Your task to perform on an android device: turn on showing notifications on the lock screen Image 0: 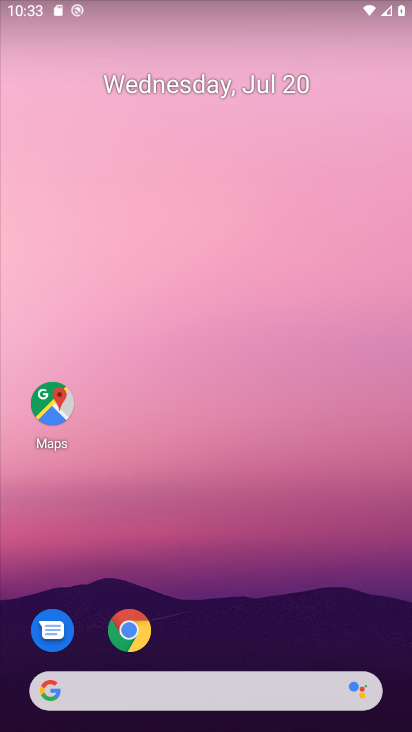
Step 0: click (198, 115)
Your task to perform on an android device: turn on showing notifications on the lock screen Image 1: 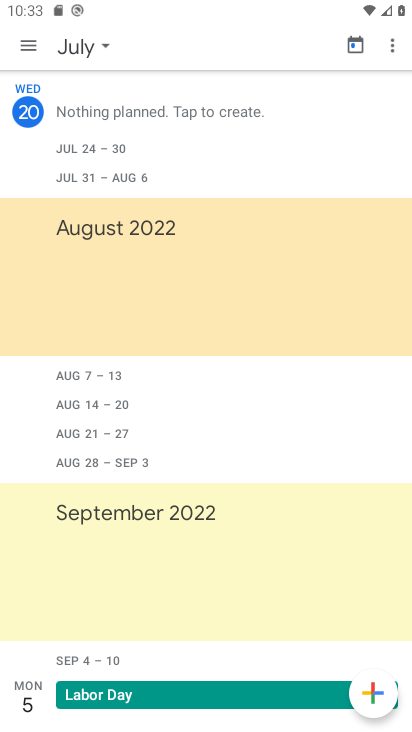
Step 1: press back button
Your task to perform on an android device: turn on showing notifications on the lock screen Image 2: 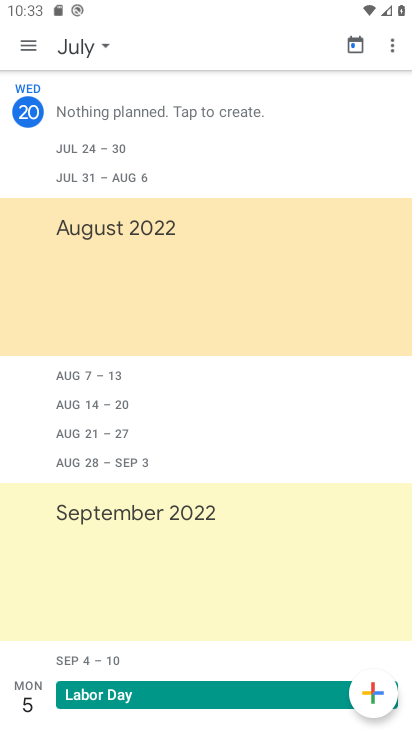
Step 2: press back button
Your task to perform on an android device: turn on showing notifications on the lock screen Image 3: 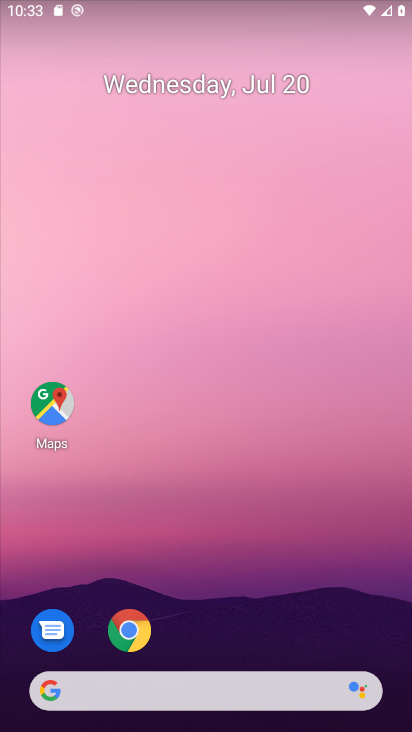
Step 3: drag from (281, 596) to (214, 204)
Your task to perform on an android device: turn on showing notifications on the lock screen Image 4: 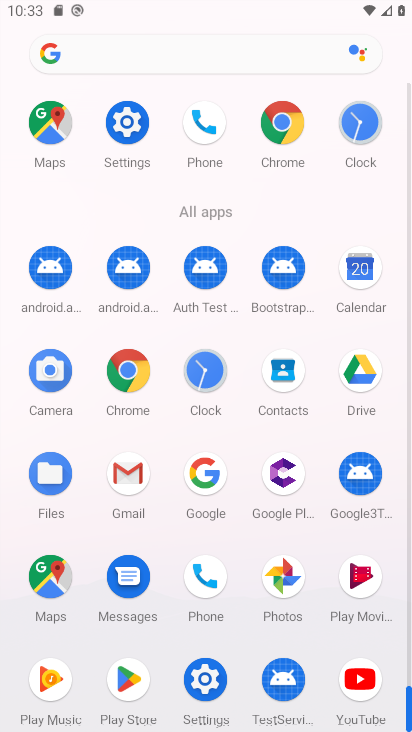
Step 4: click (204, 371)
Your task to perform on an android device: turn on showing notifications on the lock screen Image 5: 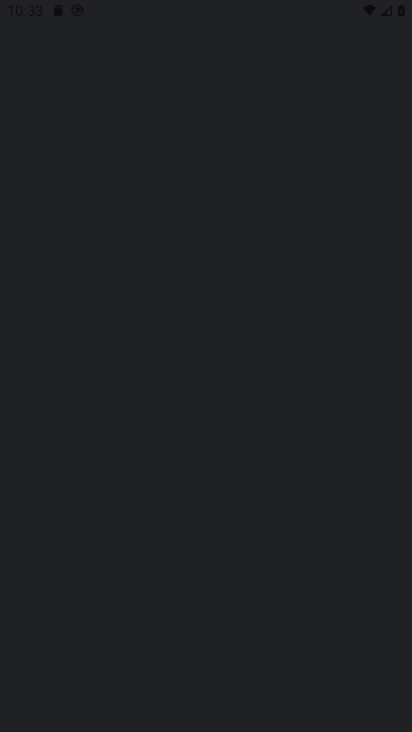
Step 5: click (218, 357)
Your task to perform on an android device: turn on showing notifications on the lock screen Image 6: 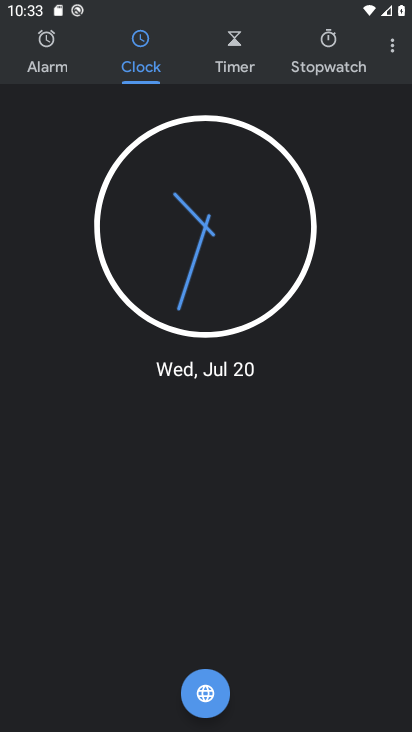
Step 6: press back button
Your task to perform on an android device: turn on showing notifications on the lock screen Image 7: 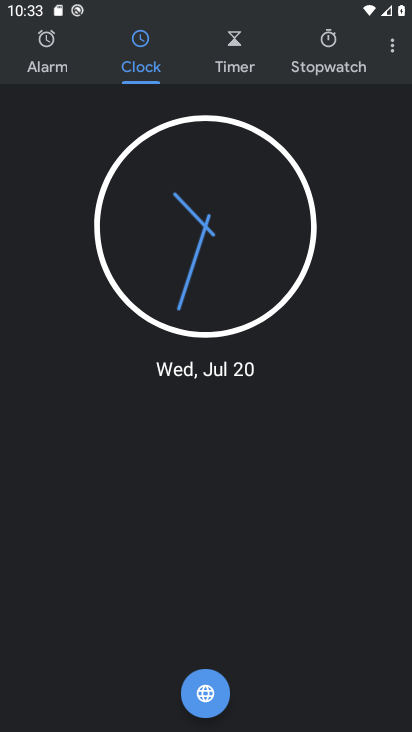
Step 7: press back button
Your task to perform on an android device: turn on showing notifications on the lock screen Image 8: 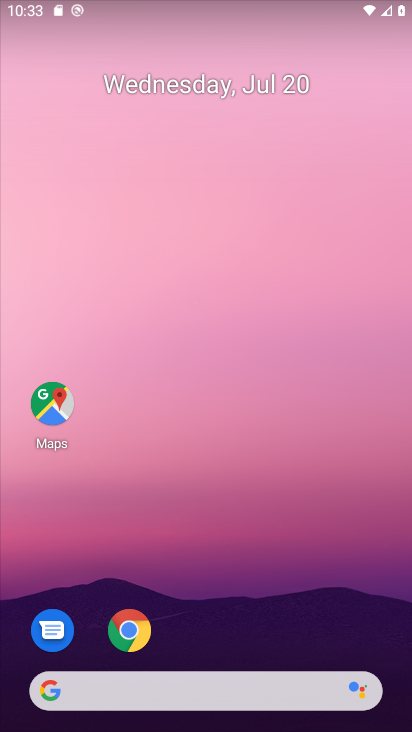
Step 8: drag from (186, 337) to (129, 149)
Your task to perform on an android device: turn on showing notifications on the lock screen Image 9: 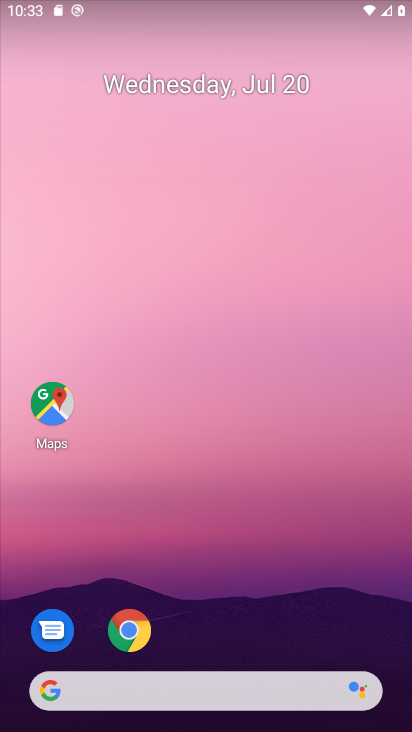
Step 9: drag from (212, 553) to (223, 245)
Your task to perform on an android device: turn on showing notifications on the lock screen Image 10: 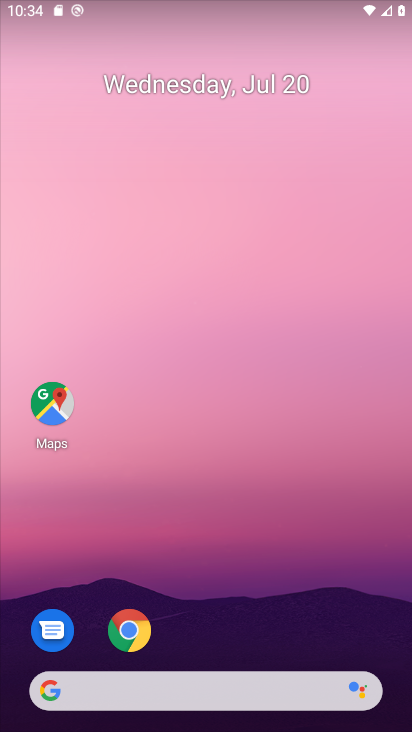
Step 10: drag from (253, 546) to (154, 246)
Your task to perform on an android device: turn on showing notifications on the lock screen Image 11: 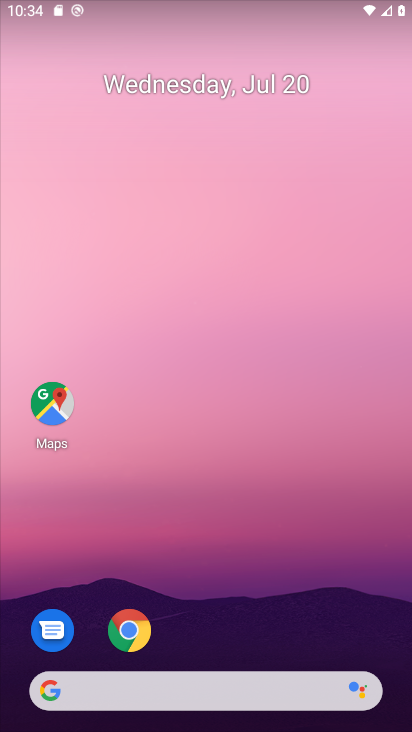
Step 11: drag from (178, 375) to (142, 161)
Your task to perform on an android device: turn on showing notifications on the lock screen Image 12: 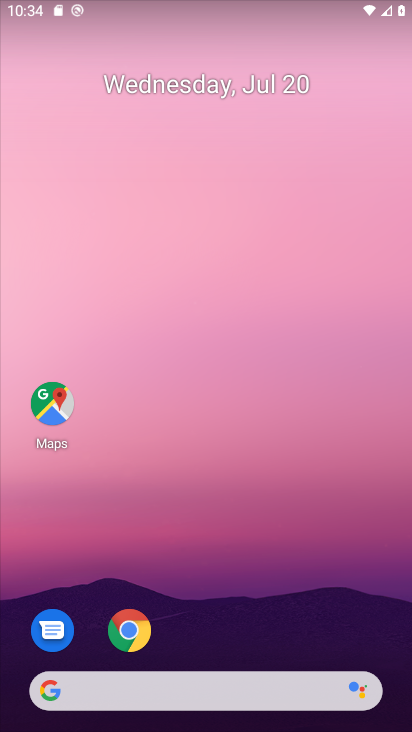
Step 12: drag from (239, 449) to (177, 193)
Your task to perform on an android device: turn on showing notifications on the lock screen Image 13: 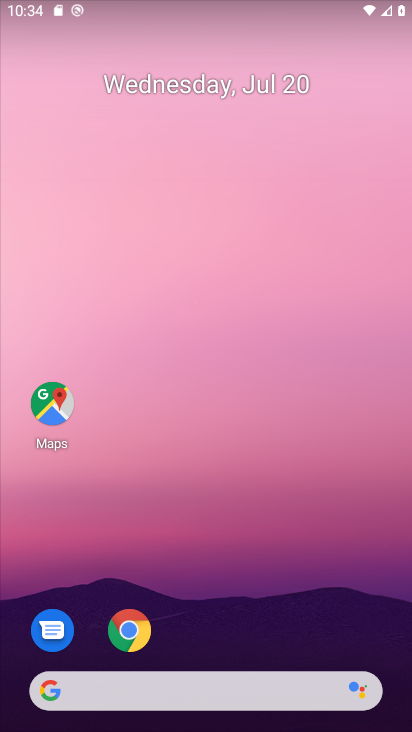
Step 13: drag from (171, 151) to (158, 24)
Your task to perform on an android device: turn on showing notifications on the lock screen Image 14: 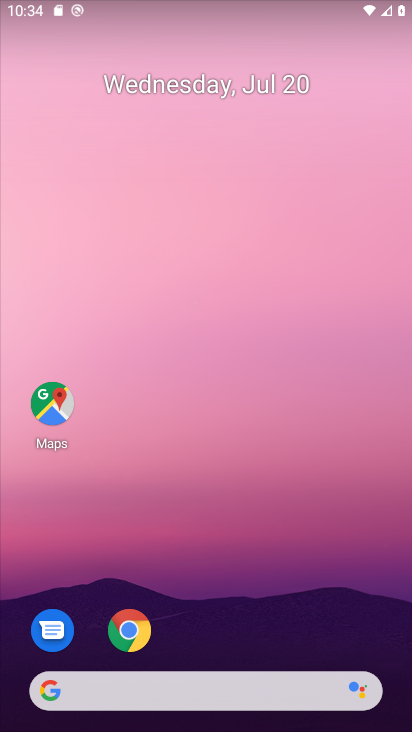
Step 14: drag from (214, 545) to (101, 25)
Your task to perform on an android device: turn on showing notifications on the lock screen Image 15: 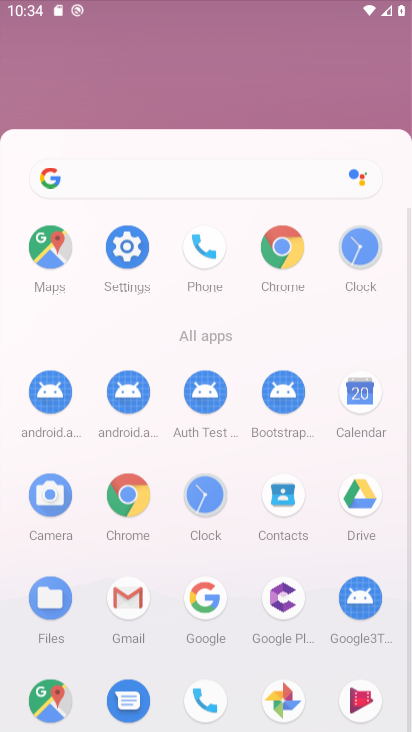
Step 15: drag from (133, 375) to (103, 39)
Your task to perform on an android device: turn on showing notifications on the lock screen Image 16: 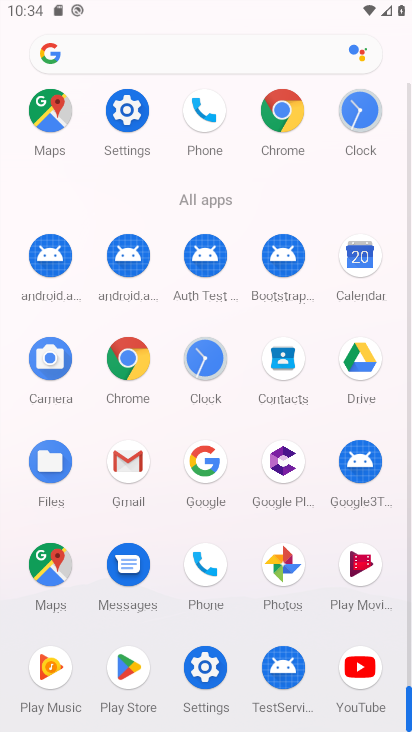
Step 16: click (205, 374)
Your task to perform on an android device: turn on showing notifications on the lock screen Image 17: 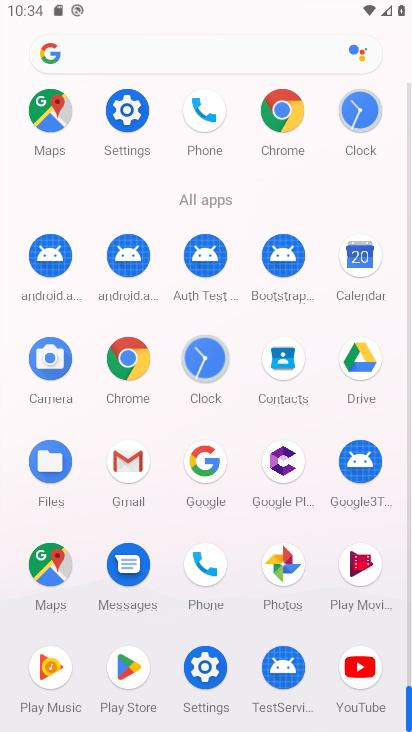
Step 17: click (209, 357)
Your task to perform on an android device: turn on showing notifications on the lock screen Image 18: 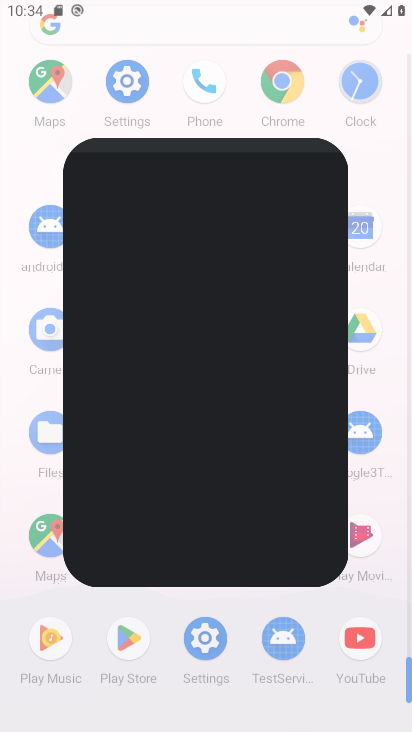
Step 18: click (211, 359)
Your task to perform on an android device: turn on showing notifications on the lock screen Image 19: 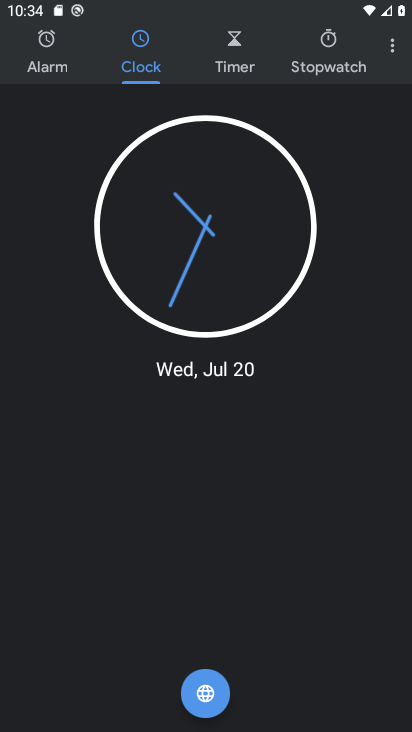
Step 19: press back button
Your task to perform on an android device: turn on showing notifications on the lock screen Image 20: 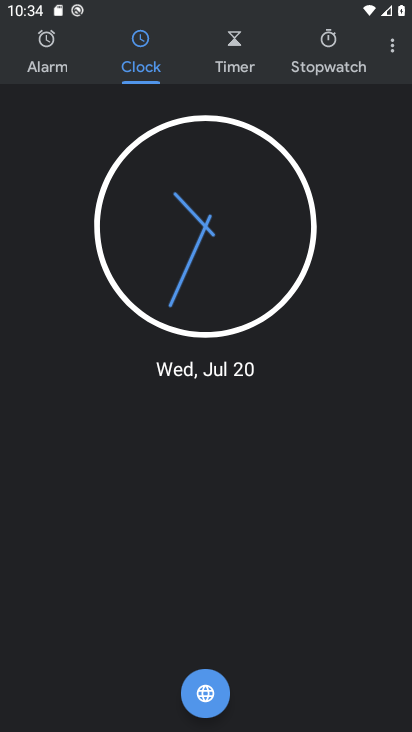
Step 20: press back button
Your task to perform on an android device: turn on showing notifications on the lock screen Image 21: 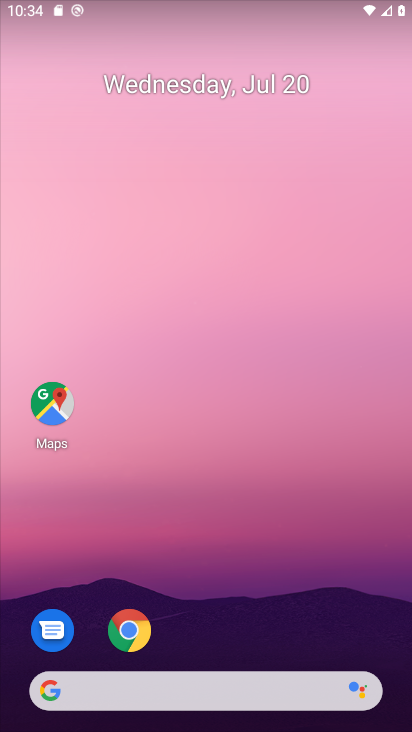
Step 21: drag from (254, 550) to (297, 103)
Your task to perform on an android device: turn on showing notifications on the lock screen Image 22: 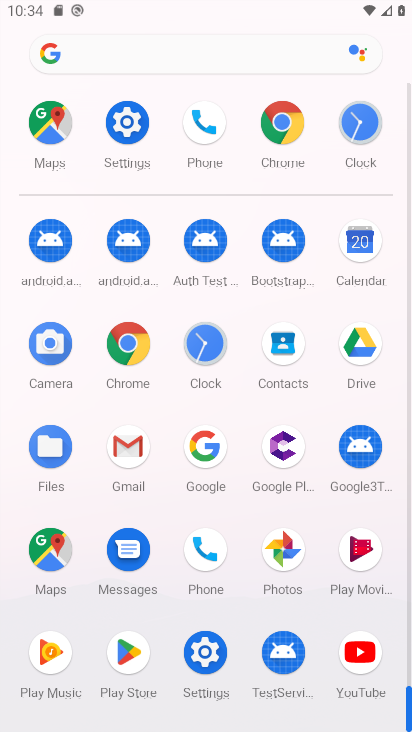
Step 22: click (132, 130)
Your task to perform on an android device: turn on showing notifications on the lock screen Image 23: 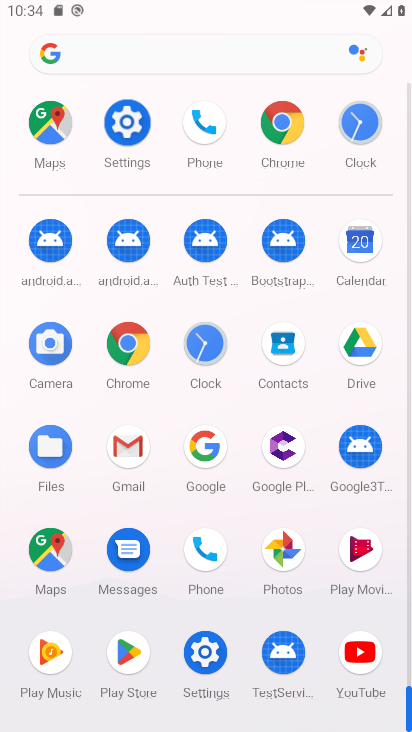
Step 23: click (132, 130)
Your task to perform on an android device: turn on showing notifications on the lock screen Image 24: 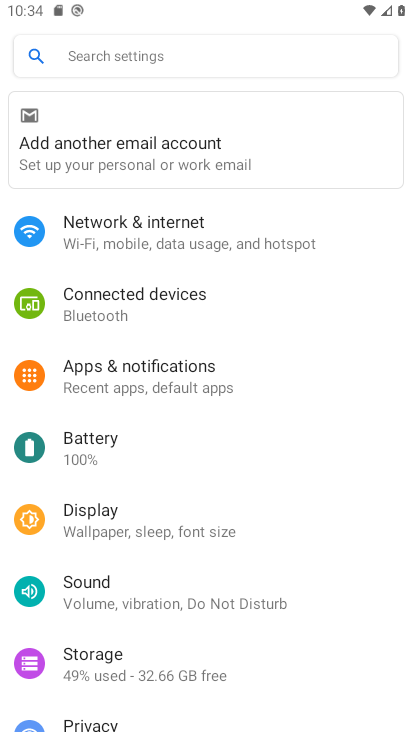
Step 24: click (142, 367)
Your task to perform on an android device: turn on showing notifications on the lock screen Image 25: 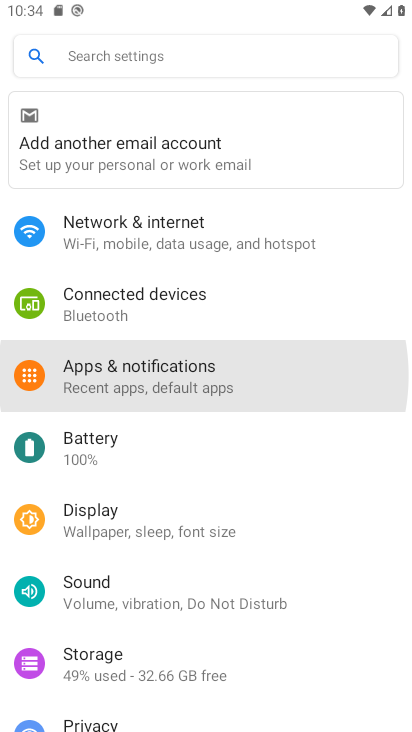
Step 25: click (142, 383)
Your task to perform on an android device: turn on showing notifications on the lock screen Image 26: 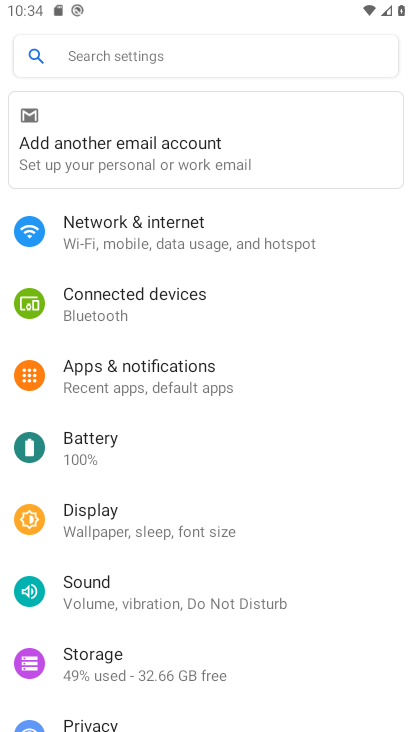
Step 26: click (142, 383)
Your task to perform on an android device: turn on showing notifications on the lock screen Image 27: 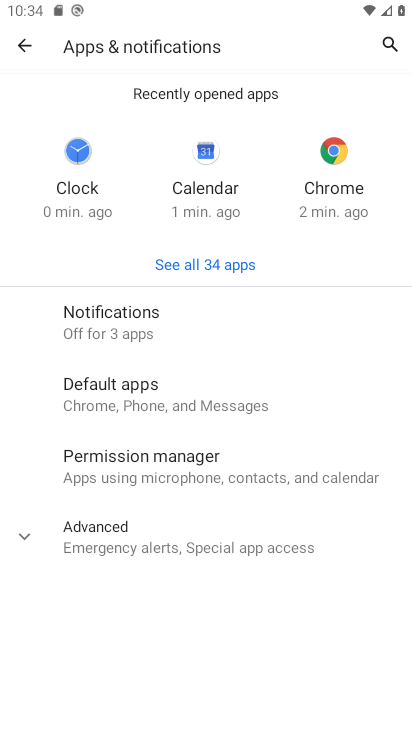
Step 27: click (105, 321)
Your task to perform on an android device: turn on showing notifications on the lock screen Image 28: 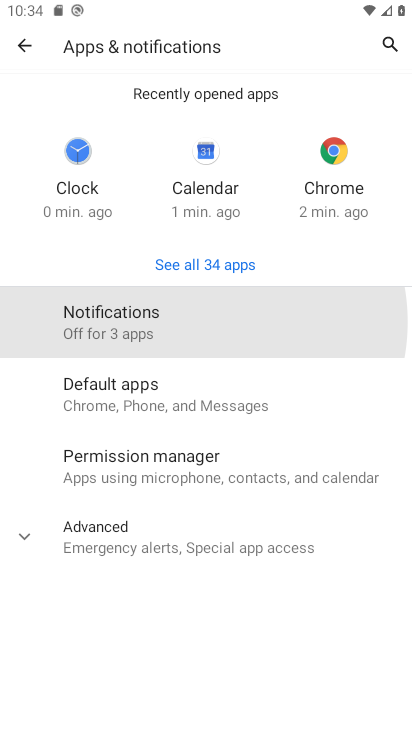
Step 28: click (105, 322)
Your task to perform on an android device: turn on showing notifications on the lock screen Image 29: 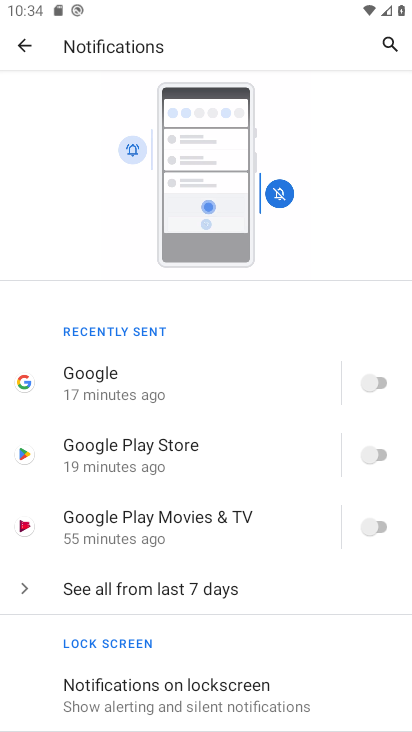
Step 29: drag from (178, 690) to (195, 207)
Your task to perform on an android device: turn on showing notifications on the lock screen Image 30: 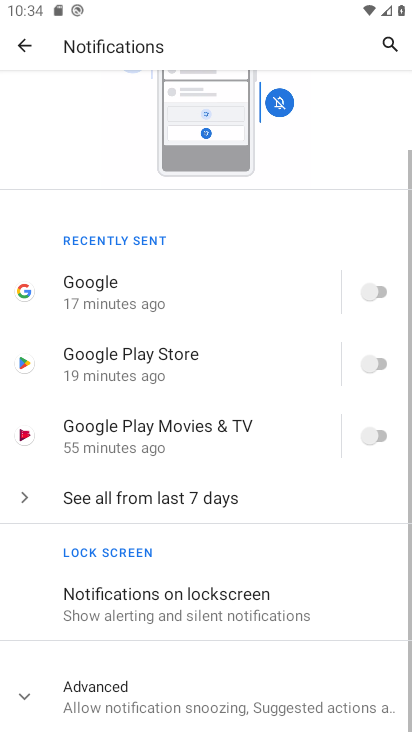
Step 30: drag from (230, 504) to (227, 309)
Your task to perform on an android device: turn on showing notifications on the lock screen Image 31: 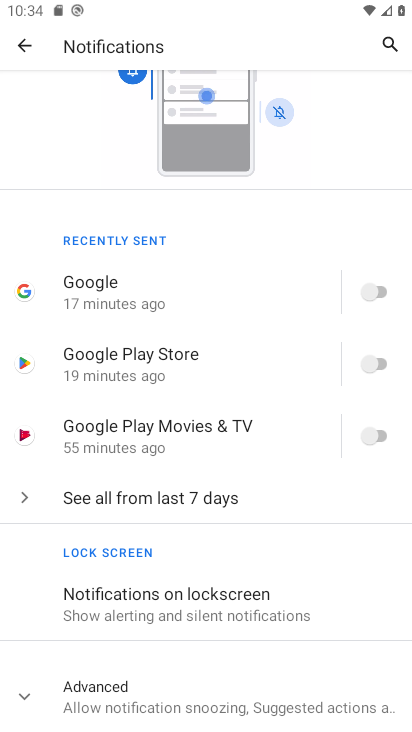
Step 31: click (131, 593)
Your task to perform on an android device: turn on showing notifications on the lock screen Image 32: 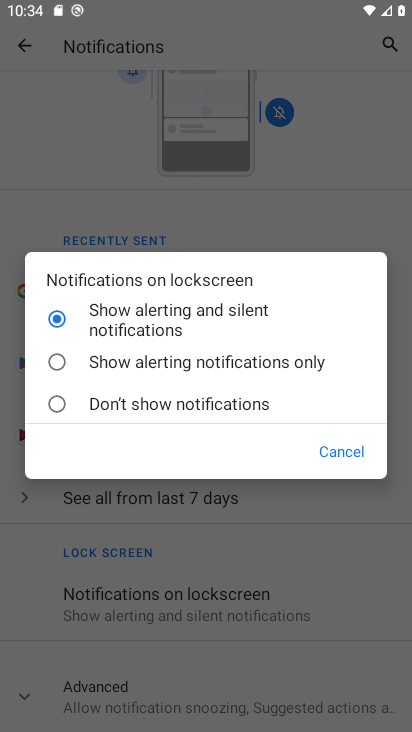
Step 32: click (342, 444)
Your task to perform on an android device: turn on showing notifications on the lock screen Image 33: 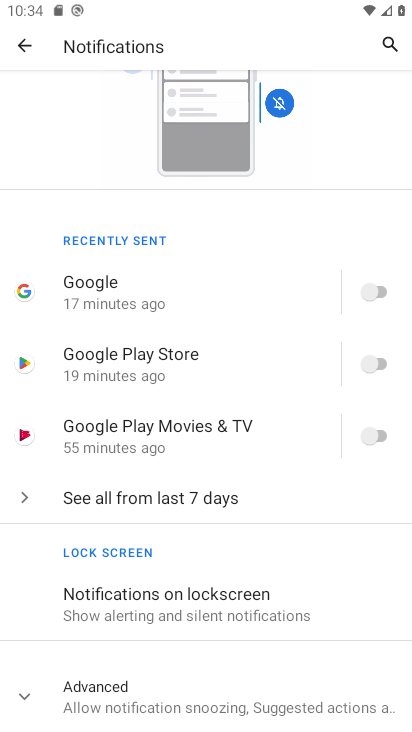
Step 33: task complete